Your task to perform on an android device: Add "asus zenbook" to the cart on amazon, then select checkout. Image 0: 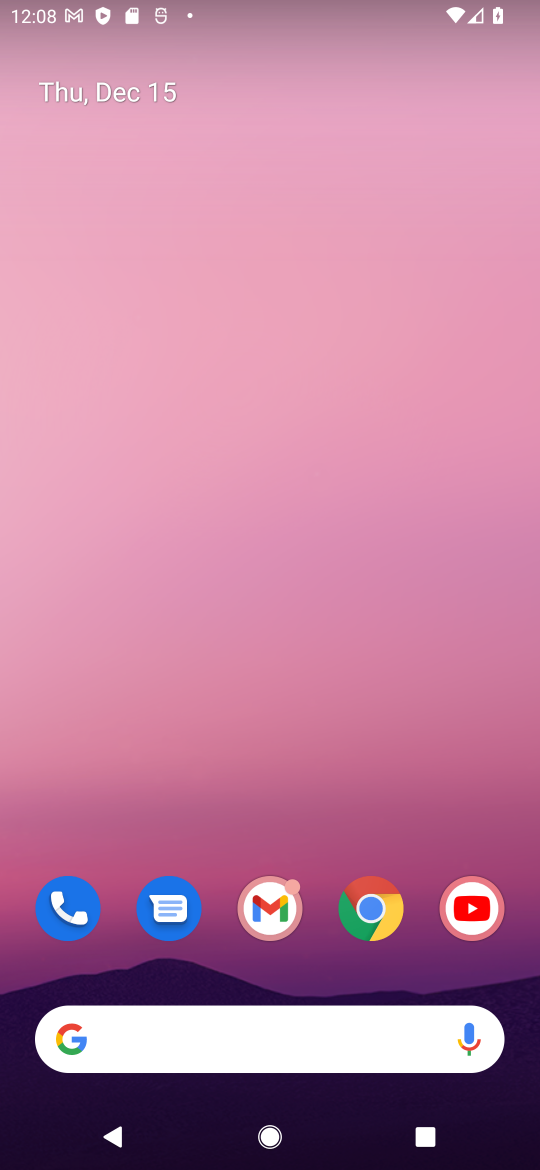
Step 0: click (382, 917)
Your task to perform on an android device: Add "asus zenbook" to the cart on amazon, then select checkout. Image 1: 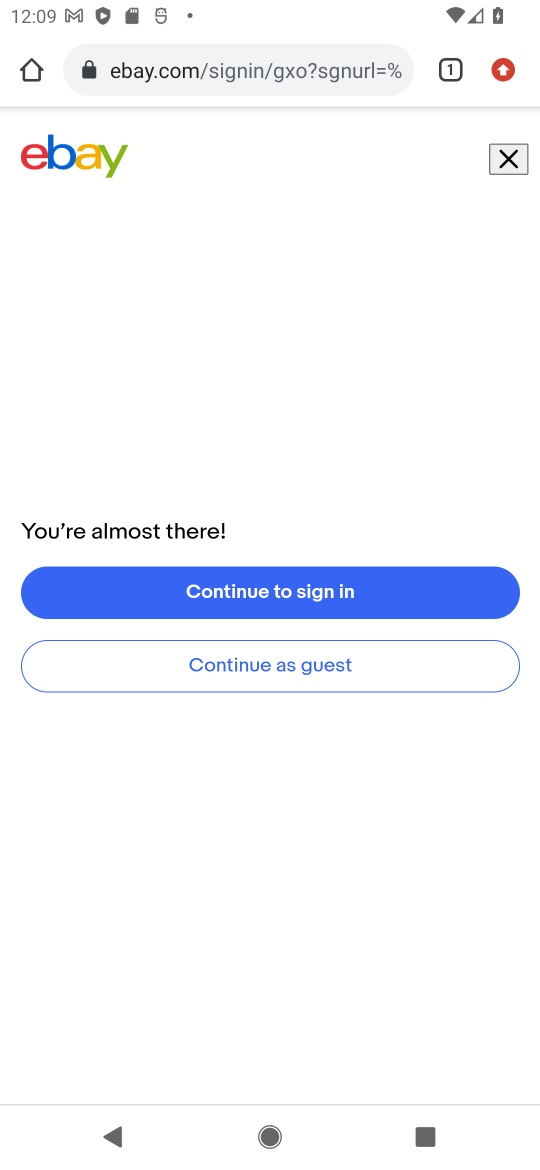
Step 1: click (206, 77)
Your task to perform on an android device: Add "asus zenbook" to the cart on amazon, then select checkout. Image 2: 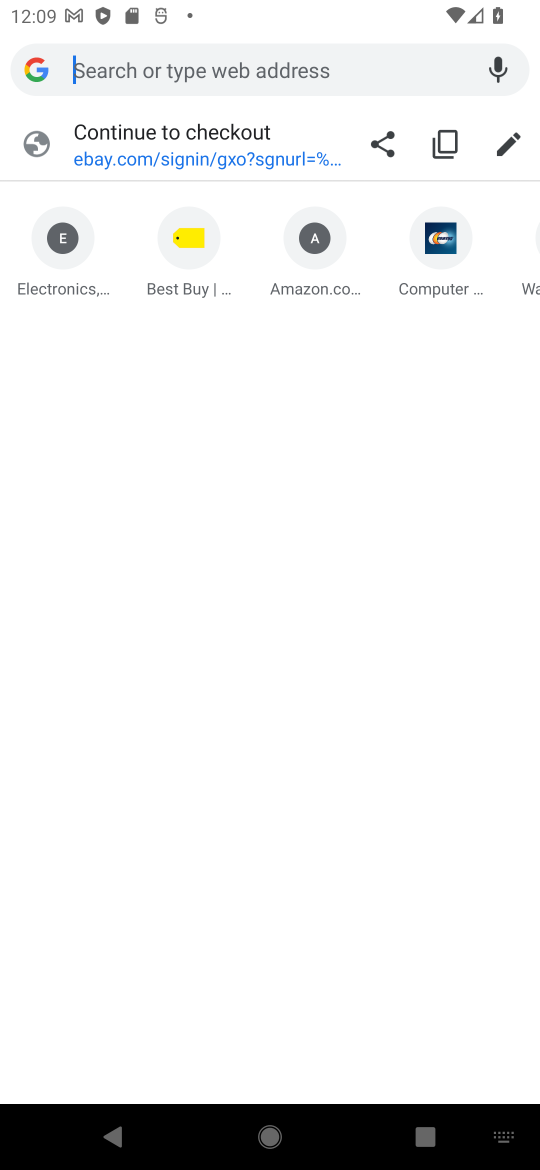
Step 2: click (315, 298)
Your task to perform on an android device: Add "asus zenbook" to the cart on amazon, then select checkout. Image 3: 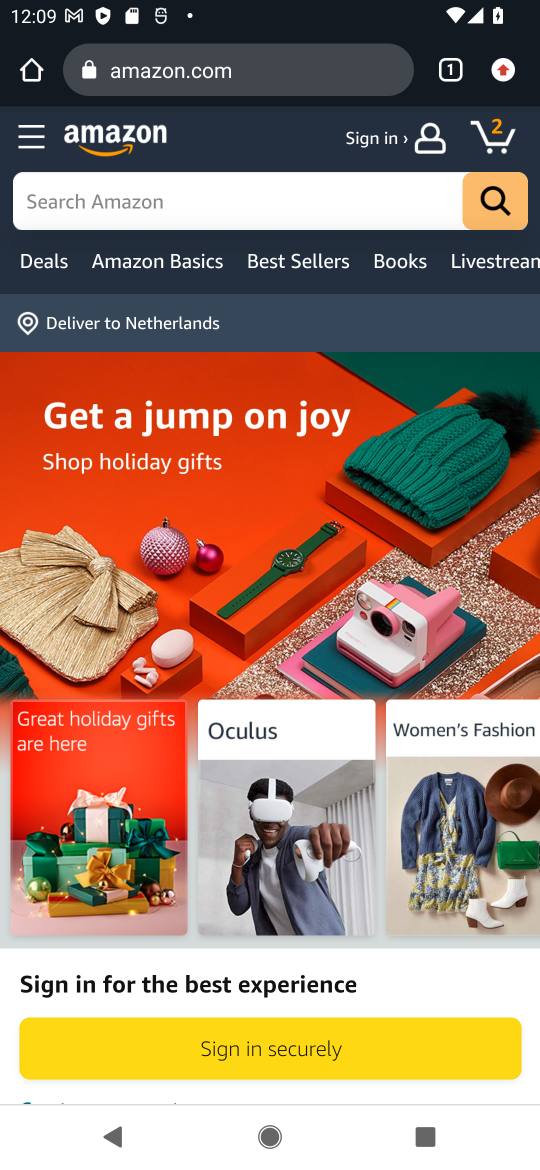
Step 3: click (129, 193)
Your task to perform on an android device: Add "asus zenbook" to the cart on amazon, then select checkout. Image 4: 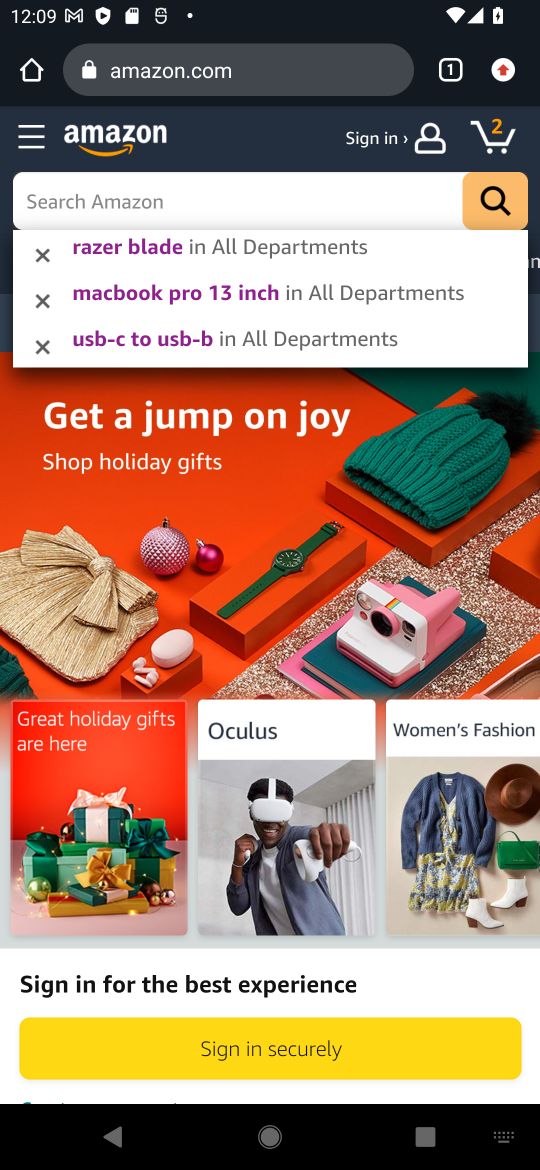
Step 4: type "asus zenbook"
Your task to perform on an android device: Add "asus zenbook" to the cart on amazon, then select checkout. Image 5: 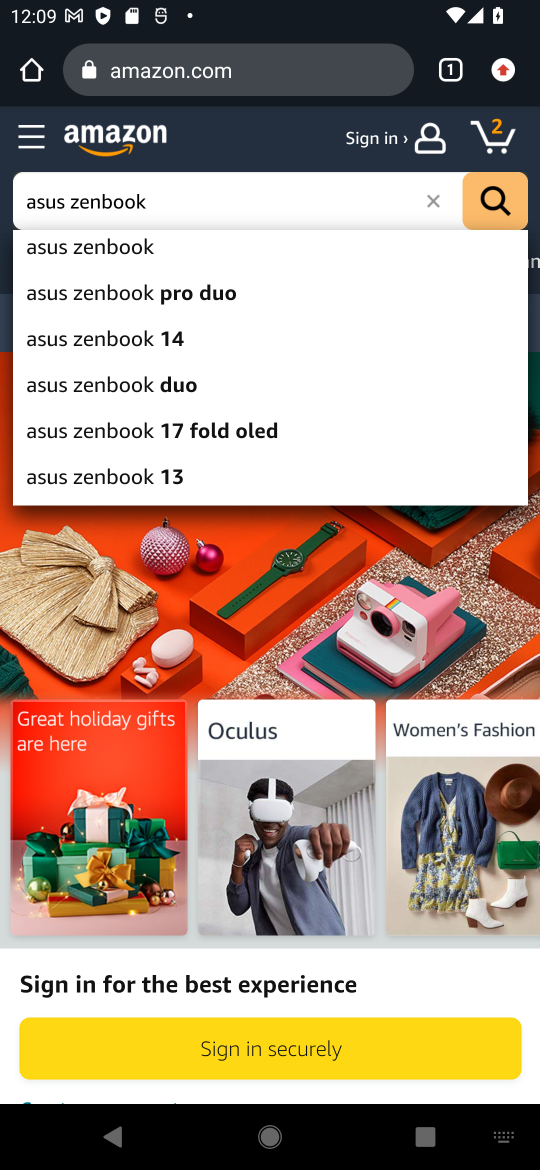
Step 5: click (87, 252)
Your task to perform on an android device: Add "asus zenbook" to the cart on amazon, then select checkout. Image 6: 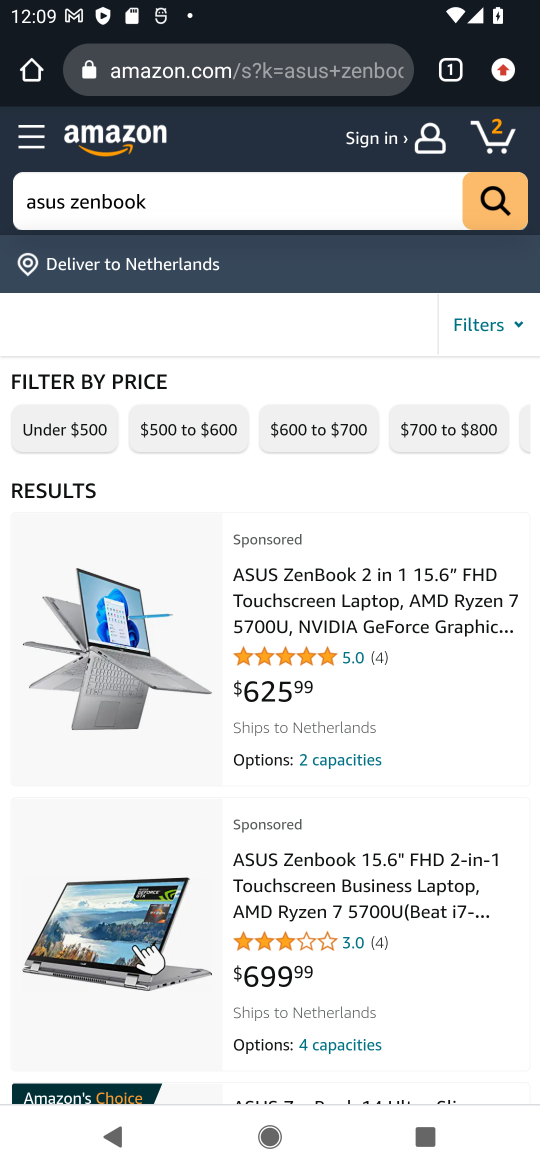
Step 6: click (330, 616)
Your task to perform on an android device: Add "asus zenbook" to the cart on amazon, then select checkout. Image 7: 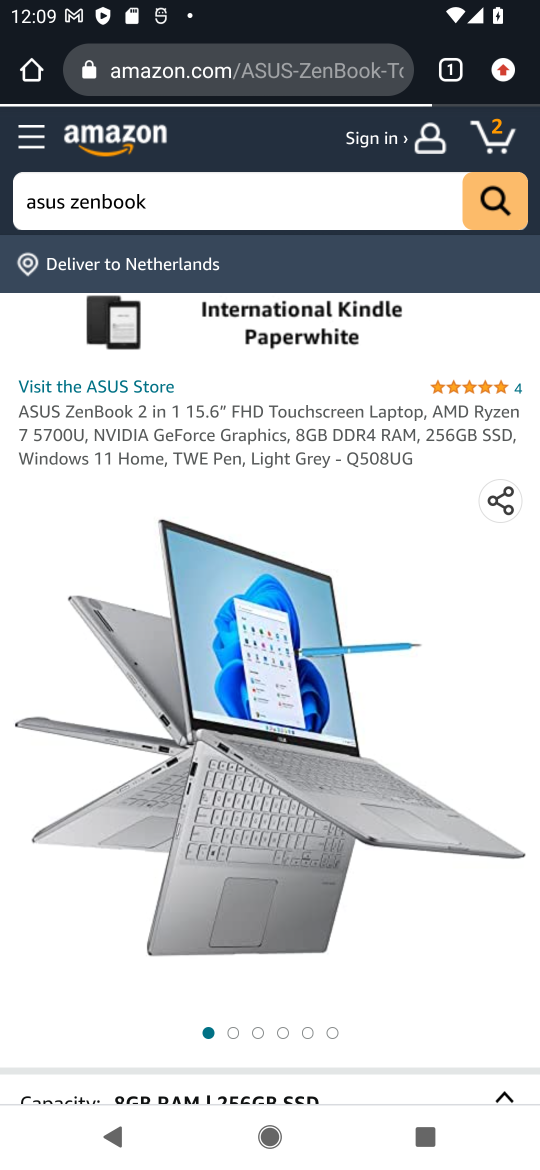
Step 7: drag from (278, 738) to (228, 451)
Your task to perform on an android device: Add "asus zenbook" to the cart on amazon, then select checkout. Image 8: 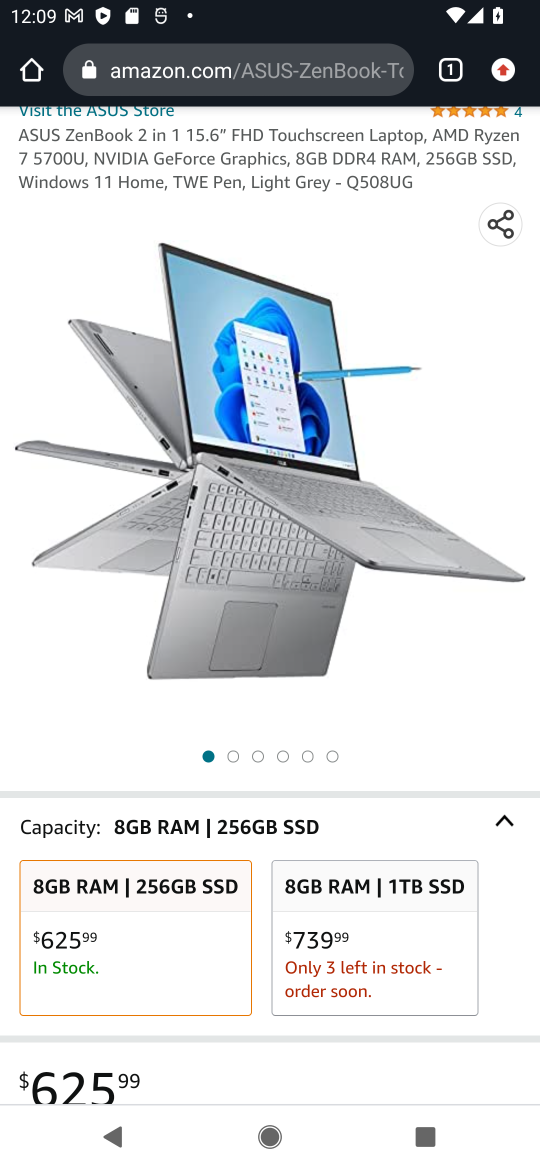
Step 8: drag from (244, 897) to (212, 363)
Your task to perform on an android device: Add "asus zenbook" to the cart on amazon, then select checkout. Image 9: 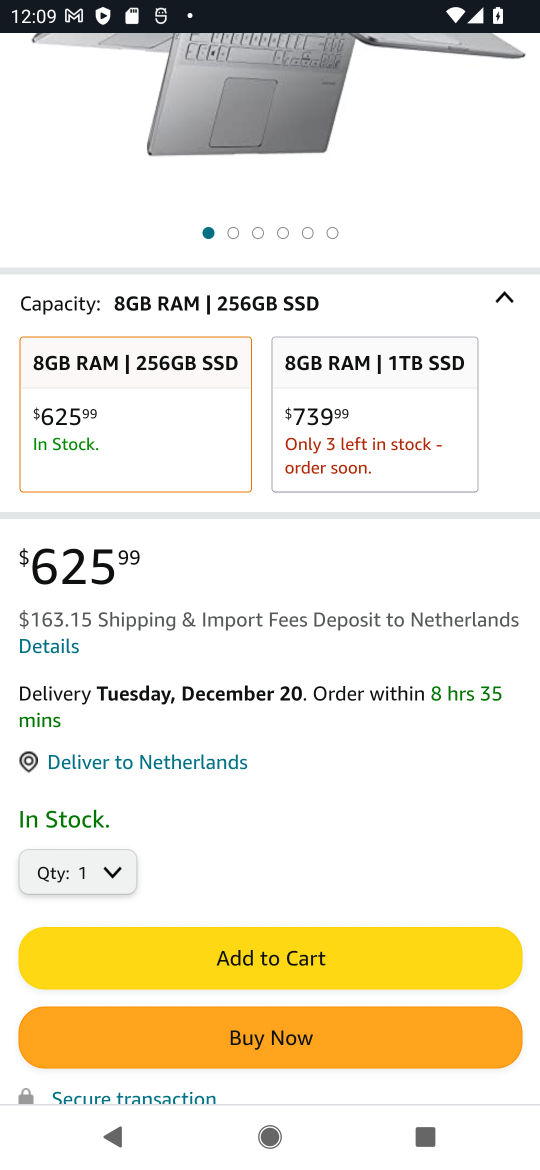
Step 9: drag from (267, 747) to (253, 545)
Your task to perform on an android device: Add "asus zenbook" to the cart on amazon, then select checkout. Image 10: 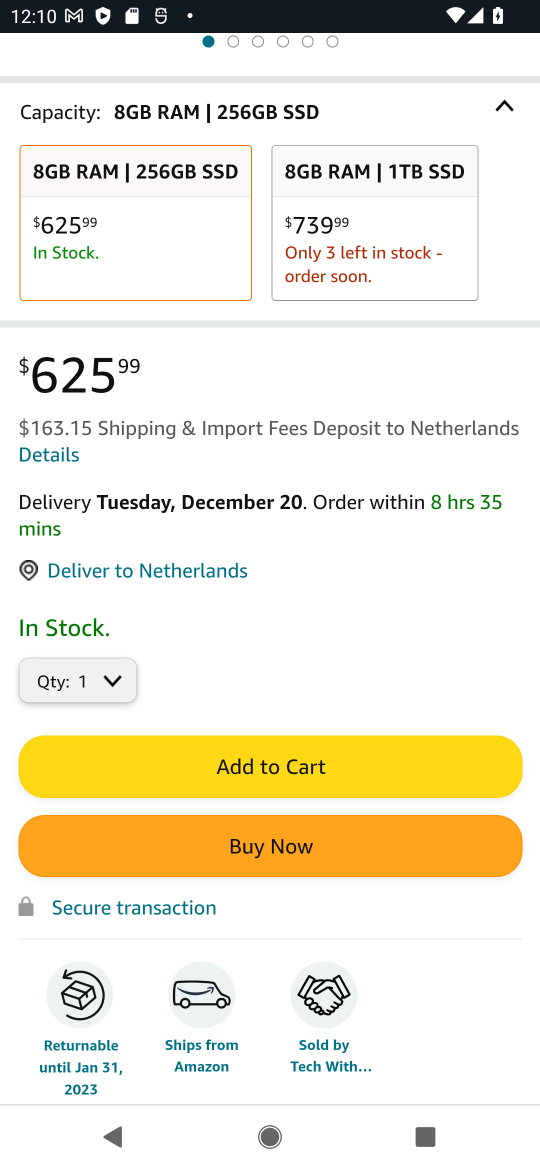
Step 10: click (247, 765)
Your task to perform on an android device: Add "asus zenbook" to the cart on amazon, then select checkout. Image 11: 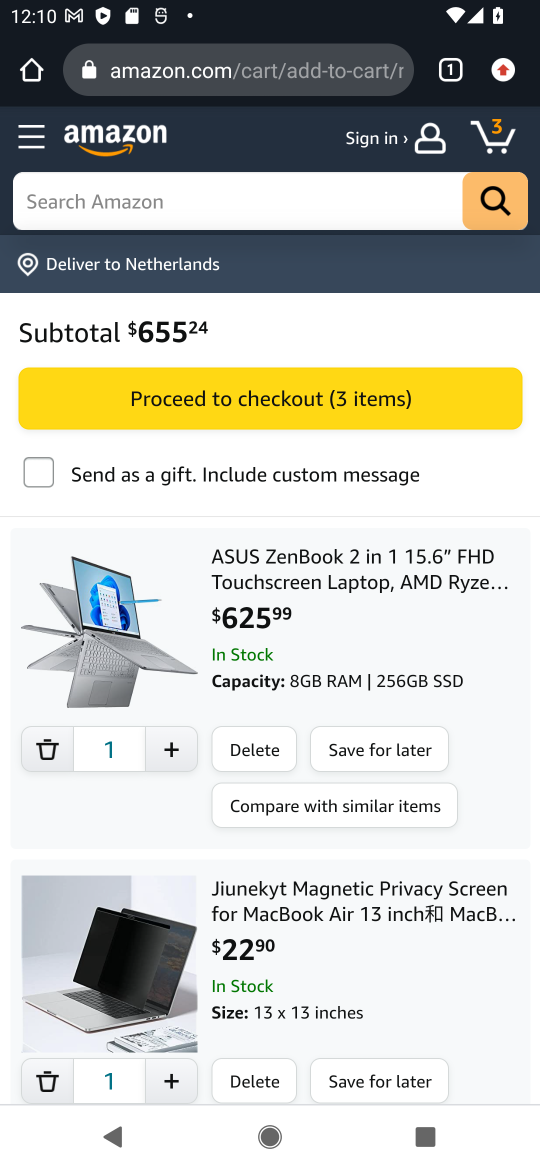
Step 11: click (238, 406)
Your task to perform on an android device: Add "asus zenbook" to the cart on amazon, then select checkout. Image 12: 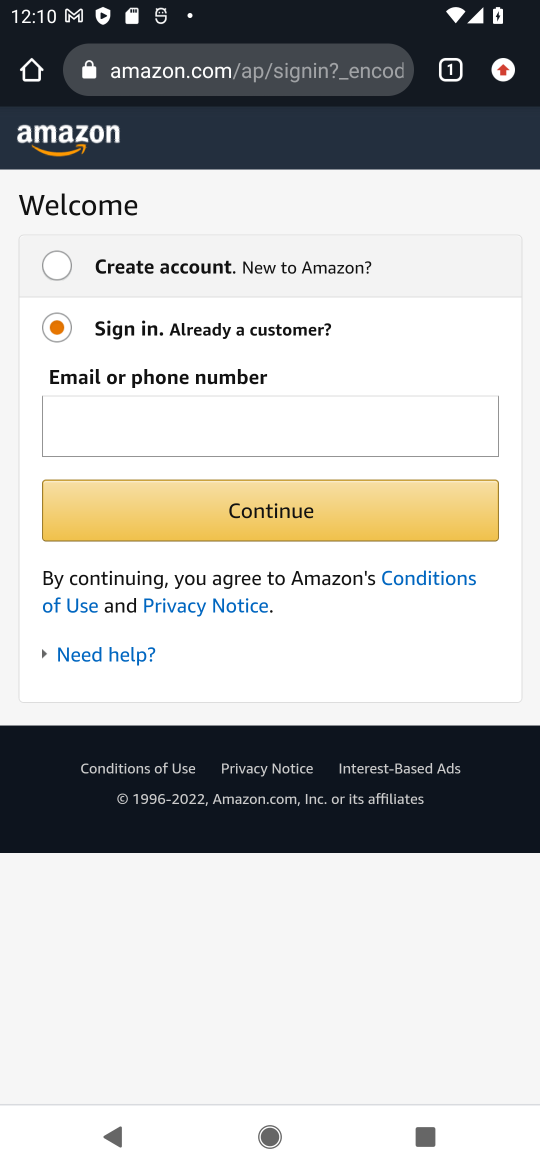
Step 12: task complete